Your task to perform on an android device: stop showing notifications on the lock screen Image 0: 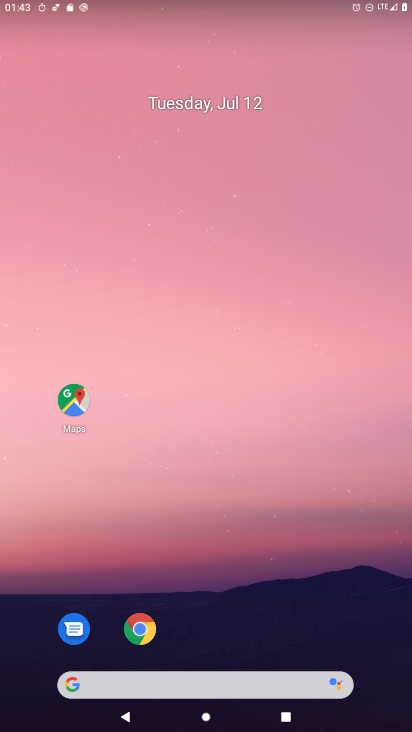
Step 0: drag from (78, 635) to (234, 178)
Your task to perform on an android device: stop showing notifications on the lock screen Image 1: 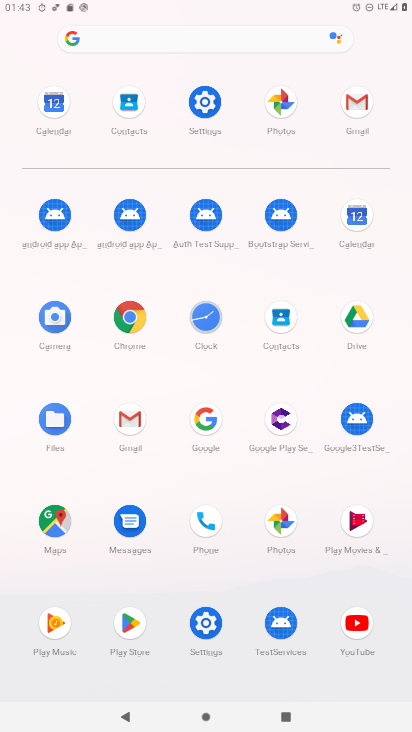
Step 1: click (205, 637)
Your task to perform on an android device: stop showing notifications on the lock screen Image 2: 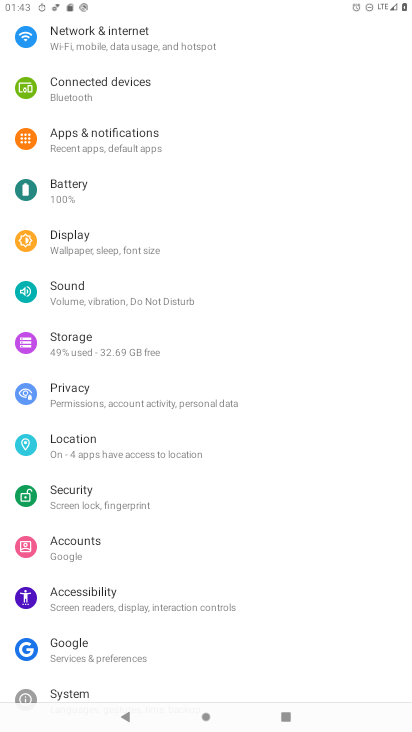
Step 2: click (98, 128)
Your task to perform on an android device: stop showing notifications on the lock screen Image 3: 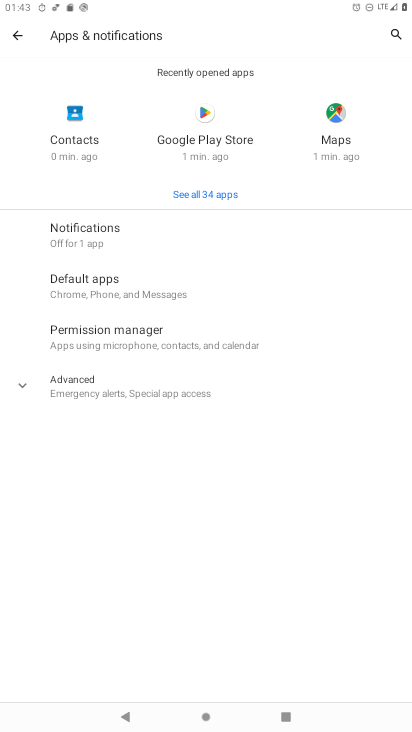
Step 3: click (61, 393)
Your task to perform on an android device: stop showing notifications on the lock screen Image 4: 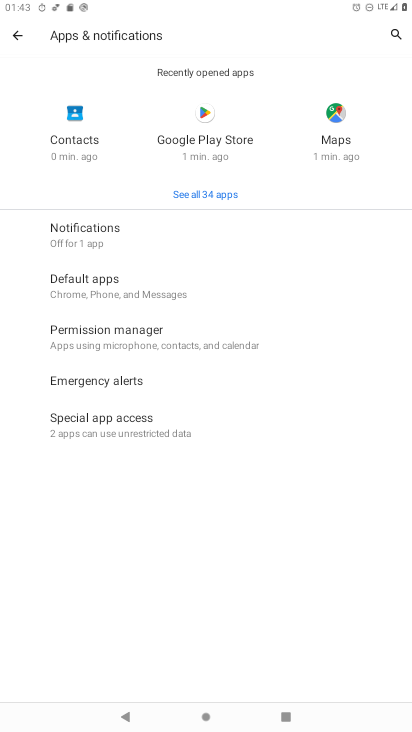
Step 4: click (119, 225)
Your task to perform on an android device: stop showing notifications on the lock screen Image 5: 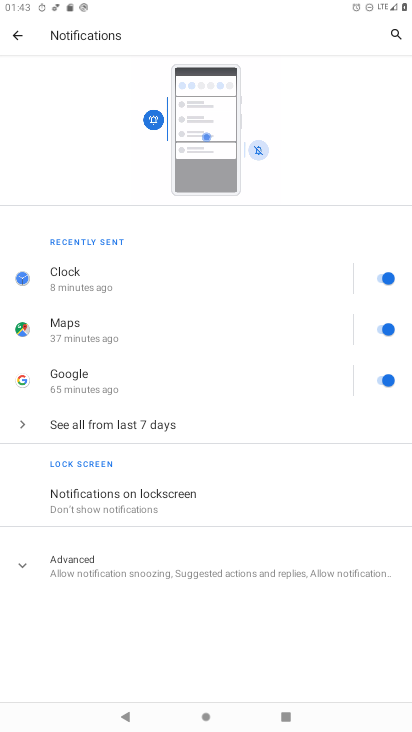
Step 5: click (90, 503)
Your task to perform on an android device: stop showing notifications on the lock screen Image 6: 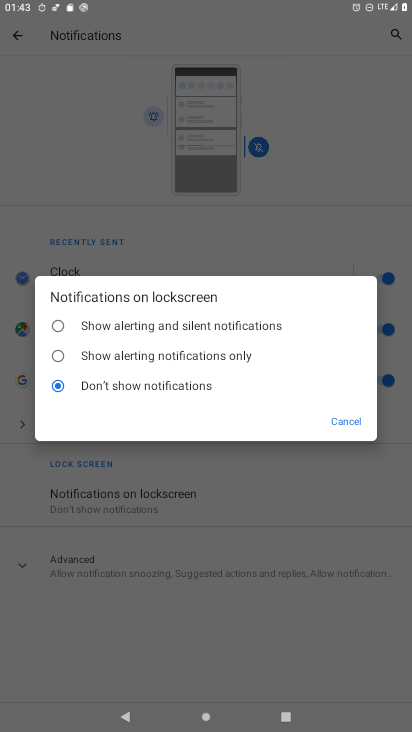
Step 6: click (135, 388)
Your task to perform on an android device: stop showing notifications on the lock screen Image 7: 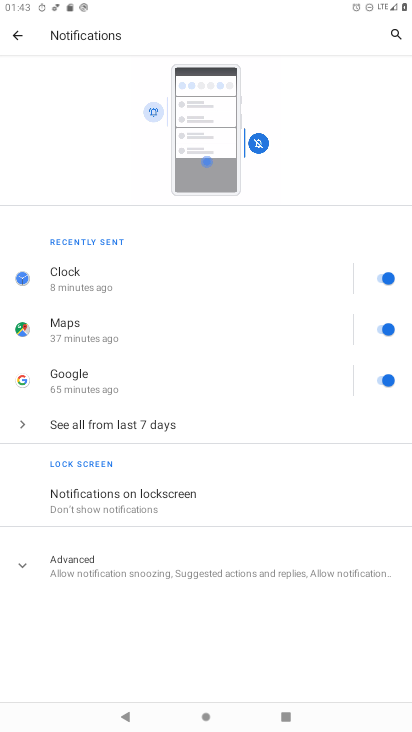
Step 7: task complete